Your task to perform on an android device: Go to Amazon Image 0: 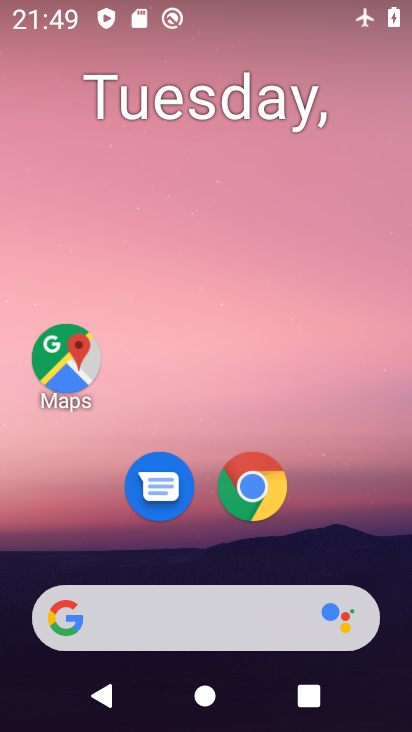
Step 0: drag from (358, 134) to (363, 87)
Your task to perform on an android device: Go to Amazon Image 1: 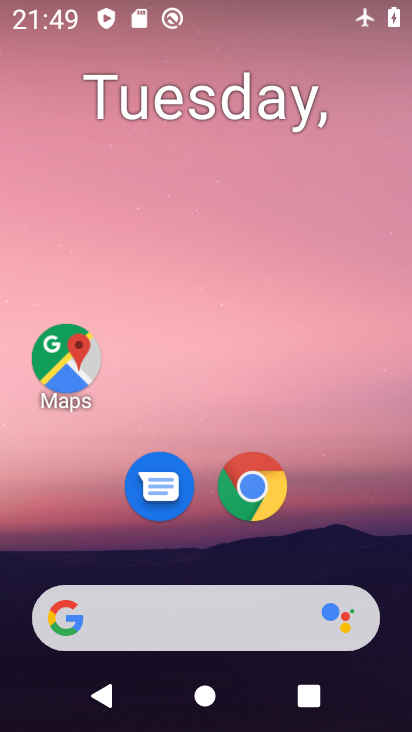
Step 1: drag from (353, 507) to (350, 84)
Your task to perform on an android device: Go to Amazon Image 2: 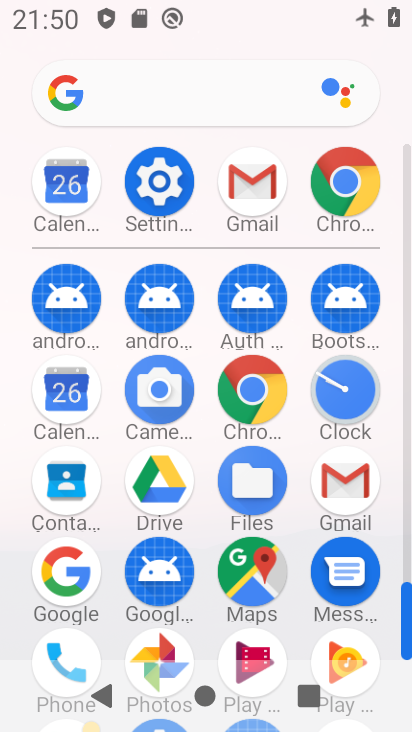
Step 2: click (256, 384)
Your task to perform on an android device: Go to Amazon Image 3: 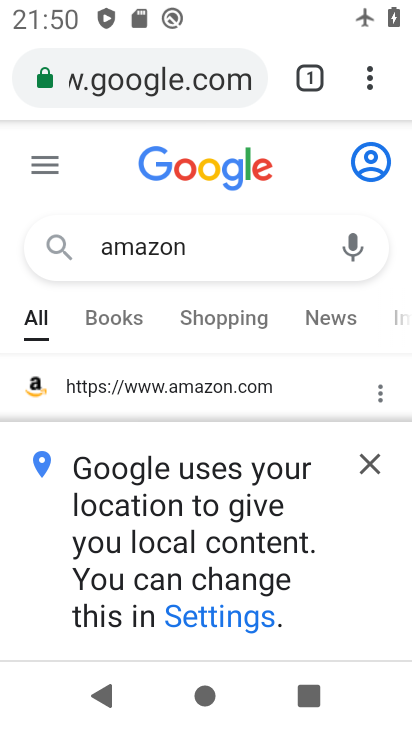
Step 3: click (200, 77)
Your task to perform on an android device: Go to Amazon Image 4: 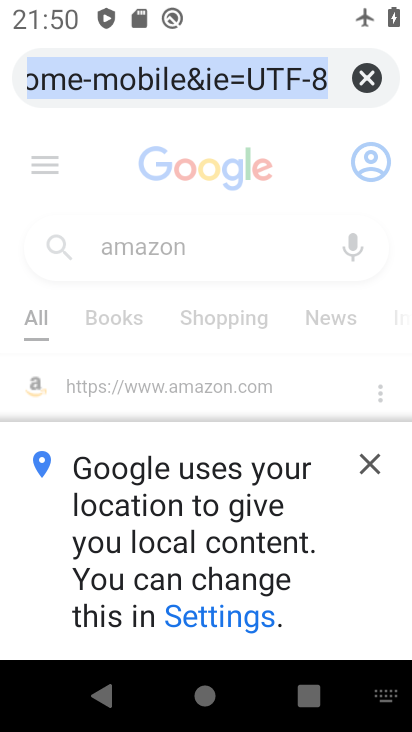
Step 4: type "amazon"
Your task to perform on an android device: Go to Amazon Image 5: 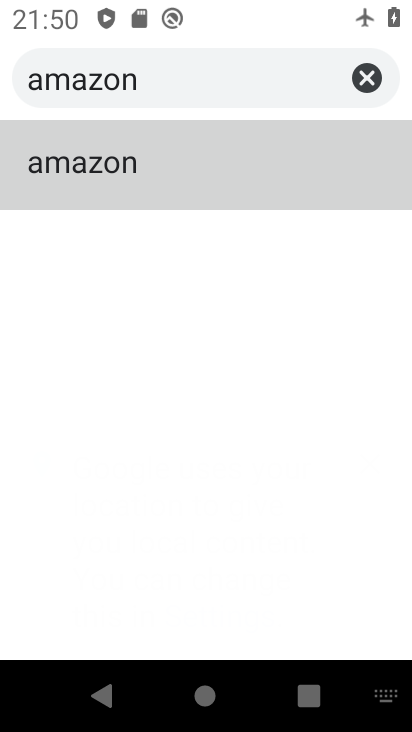
Step 5: click (355, 169)
Your task to perform on an android device: Go to Amazon Image 6: 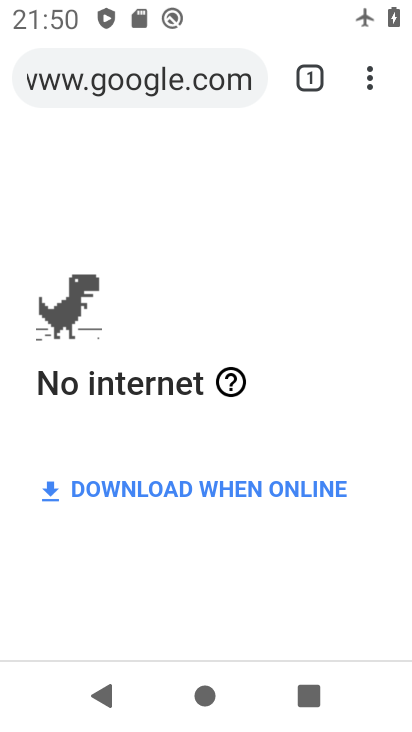
Step 6: task complete